Your task to perform on an android device: Open privacy settings Image 0: 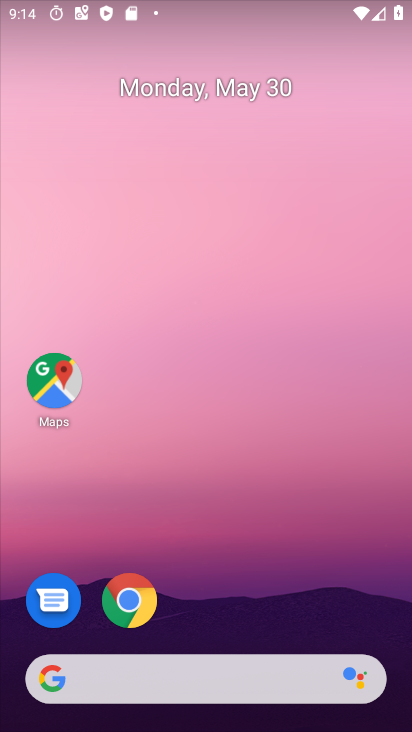
Step 0: drag from (292, 587) to (292, 49)
Your task to perform on an android device: Open privacy settings Image 1: 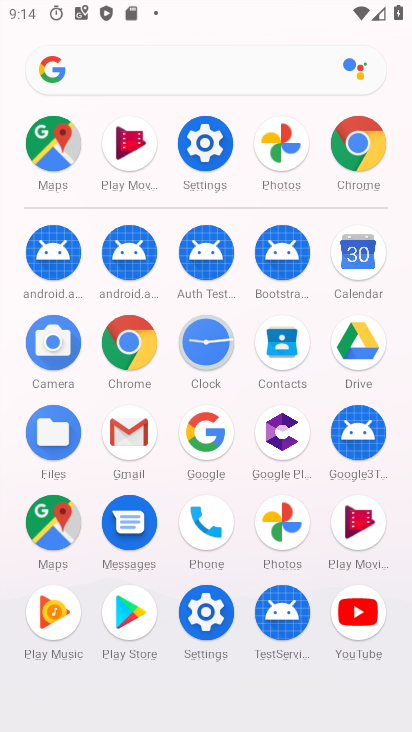
Step 1: drag from (18, 527) to (25, 280)
Your task to perform on an android device: Open privacy settings Image 2: 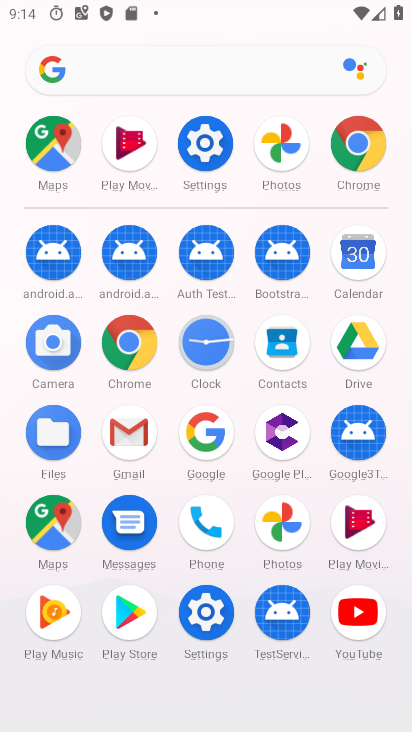
Step 2: click (128, 335)
Your task to perform on an android device: Open privacy settings Image 3: 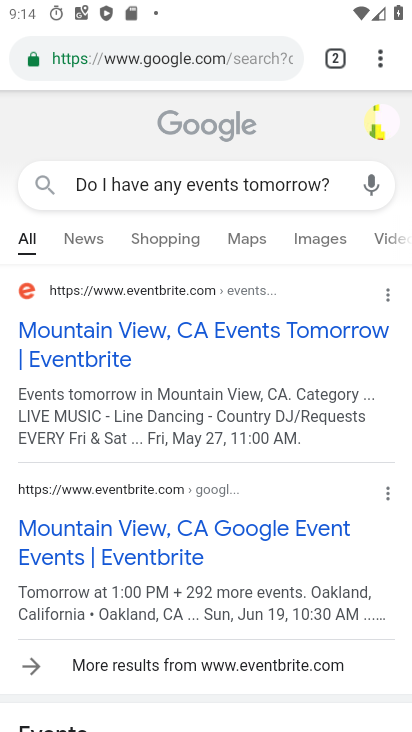
Step 3: drag from (377, 52) to (171, 649)
Your task to perform on an android device: Open privacy settings Image 4: 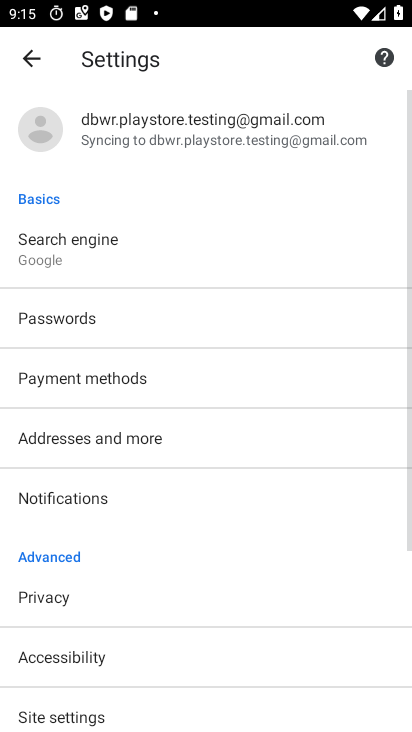
Step 4: click (62, 583)
Your task to perform on an android device: Open privacy settings Image 5: 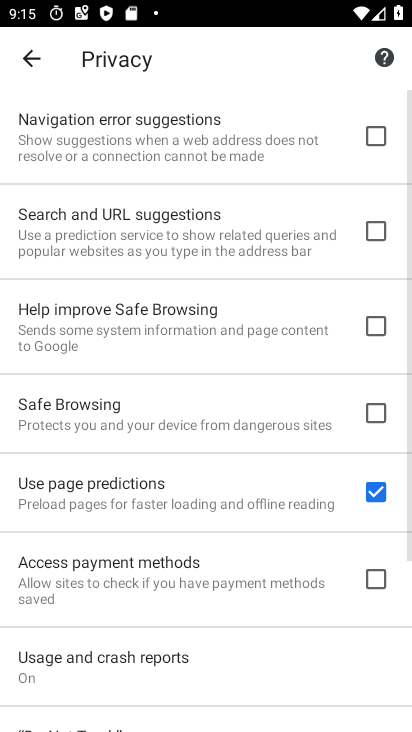
Step 5: task complete